Your task to perform on an android device: Go to Maps Image 0: 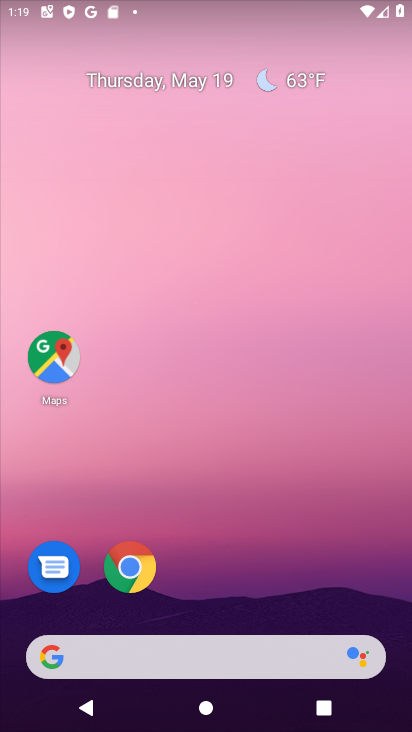
Step 0: drag from (275, 526) to (228, 19)
Your task to perform on an android device: Go to Maps Image 1: 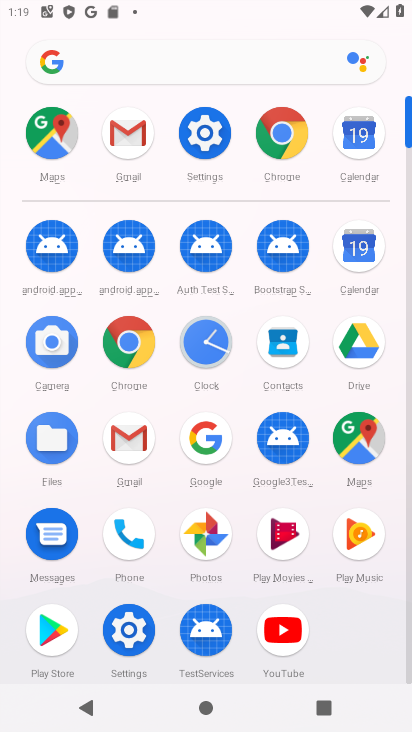
Step 1: click (62, 139)
Your task to perform on an android device: Go to Maps Image 2: 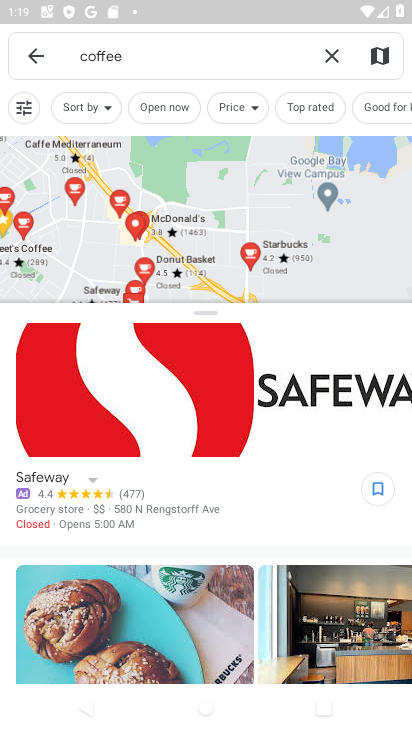
Step 2: task complete